Your task to perform on an android device: Open Google Maps Image 0: 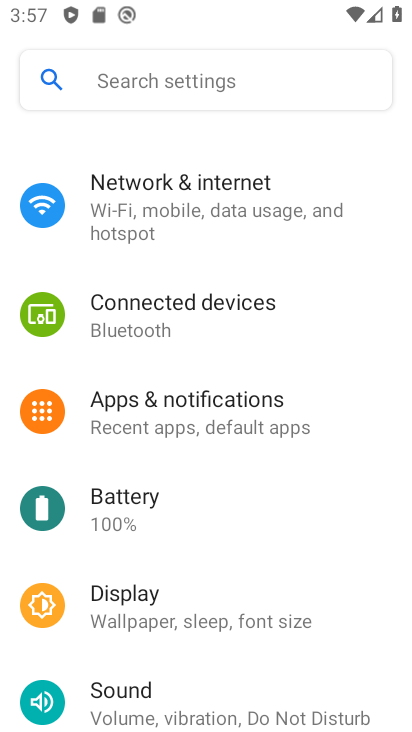
Step 0: press home button
Your task to perform on an android device: Open Google Maps Image 1: 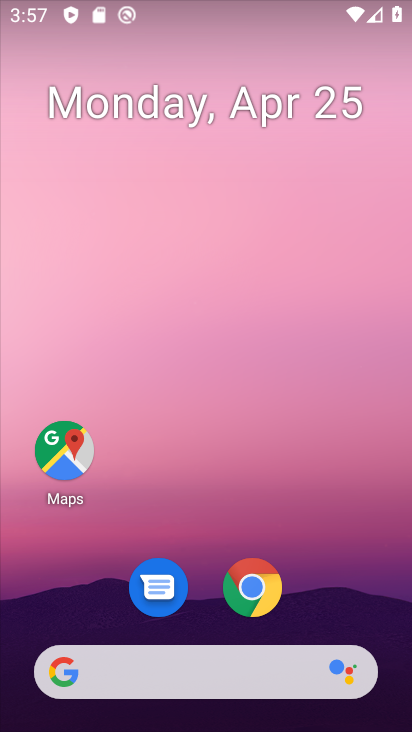
Step 1: click (58, 457)
Your task to perform on an android device: Open Google Maps Image 2: 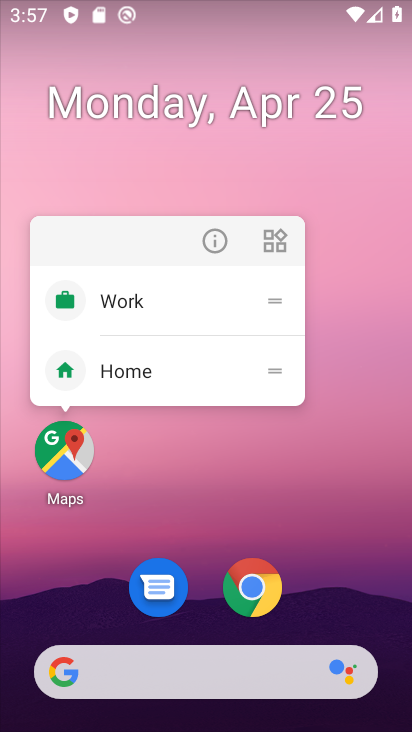
Step 2: click (60, 455)
Your task to perform on an android device: Open Google Maps Image 3: 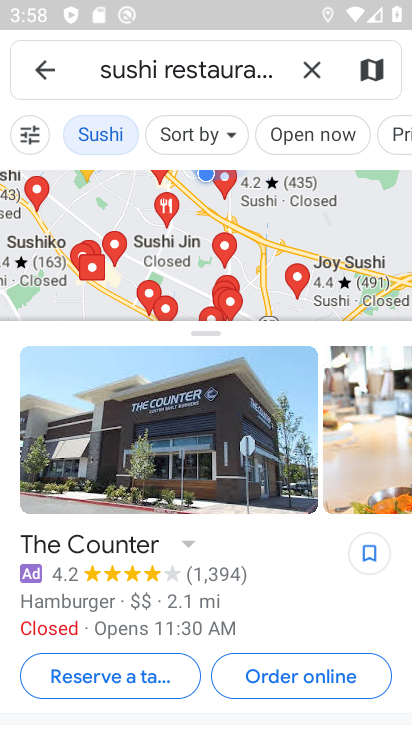
Step 3: task complete